Your task to perform on an android device: turn off wifi Image 0: 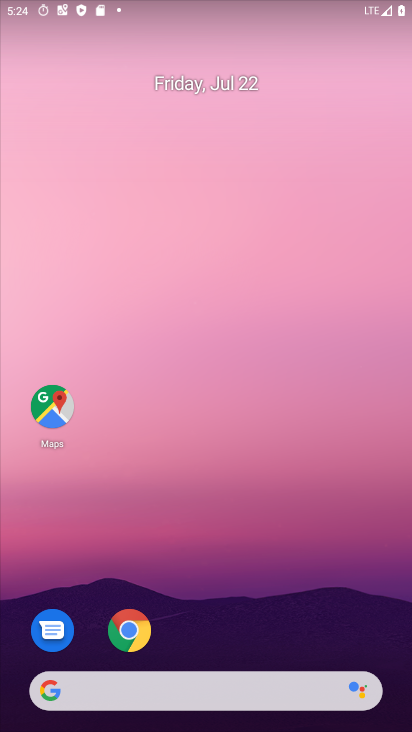
Step 0: drag from (282, 682) to (223, 59)
Your task to perform on an android device: turn off wifi Image 1: 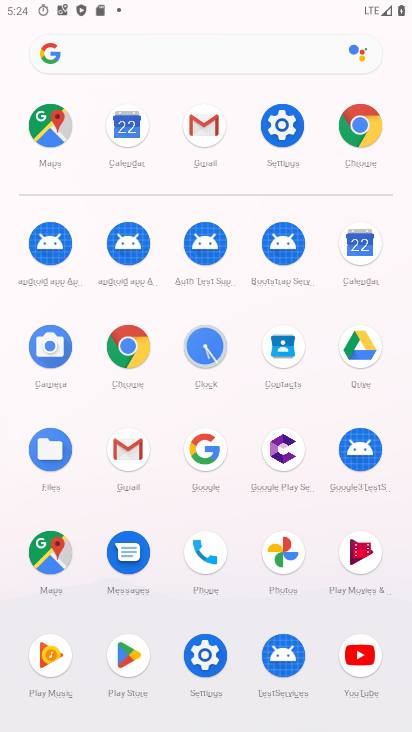
Step 1: click (296, 108)
Your task to perform on an android device: turn off wifi Image 2: 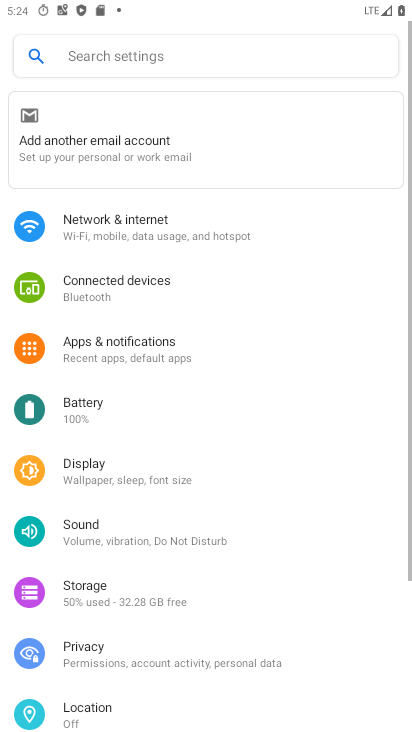
Step 2: click (119, 238)
Your task to perform on an android device: turn off wifi Image 3: 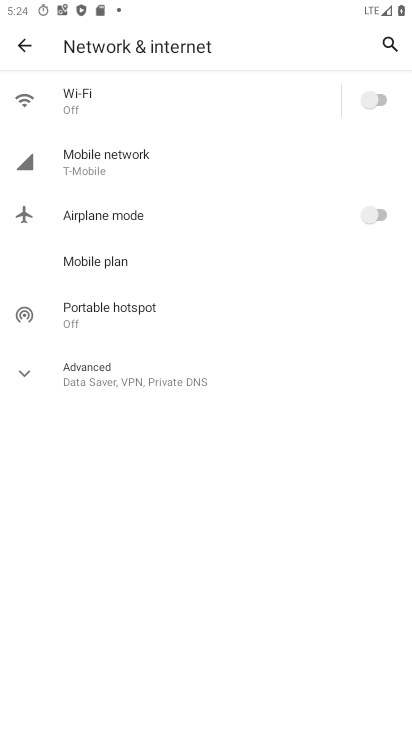
Step 3: task complete